Your task to perform on an android device: open a bookmark in the chrome app Image 0: 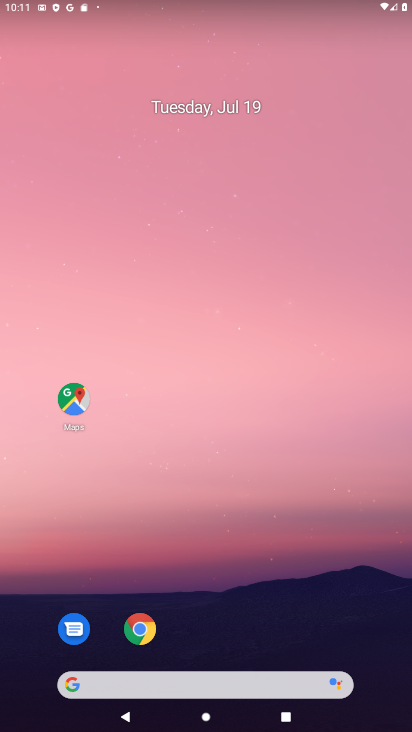
Step 0: drag from (207, 663) to (186, 93)
Your task to perform on an android device: open a bookmark in the chrome app Image 1: 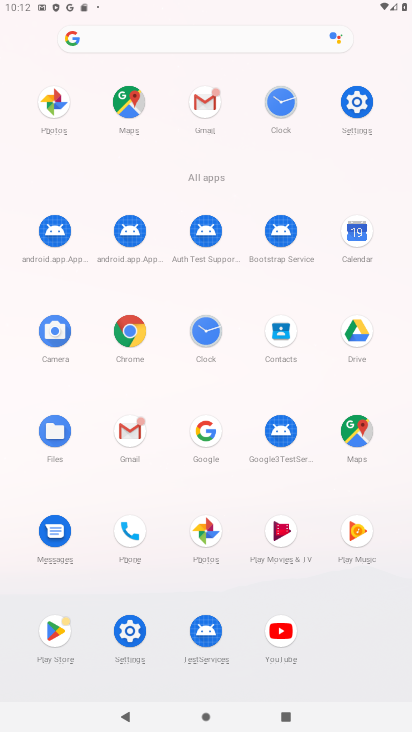
Step 1: click (135, 327)
Your task to perform on an android device: open a bookmark in the chrome app Image 2: 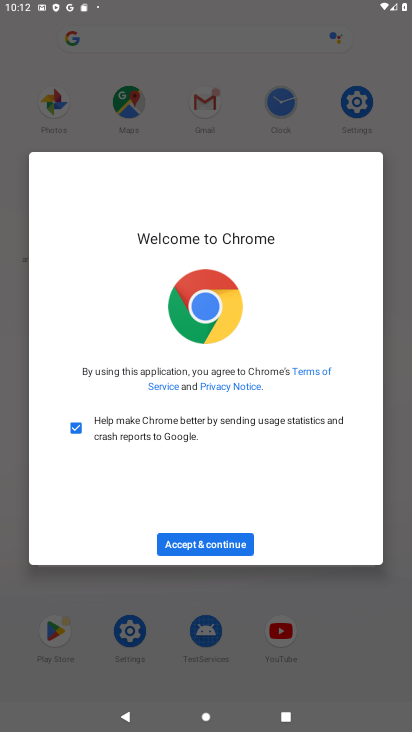
Step 2: click (233, 533)
Your task to perform on an android device: open a bookmark in the chrome app Image 3: 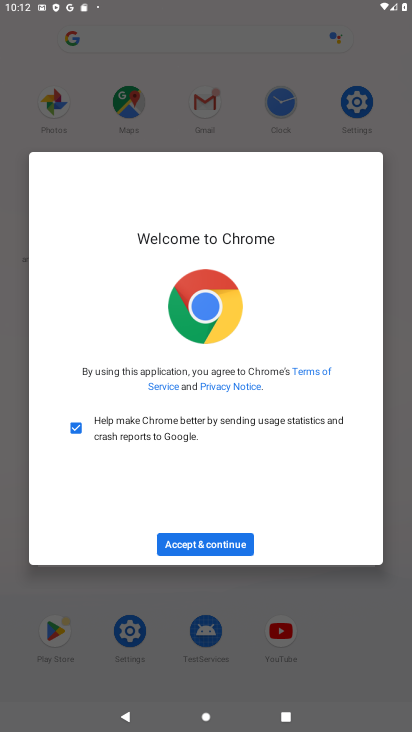
Step 3: click (230, 545)
Your task to perform on an android device: open a bookmark in the chrome app Image 4: 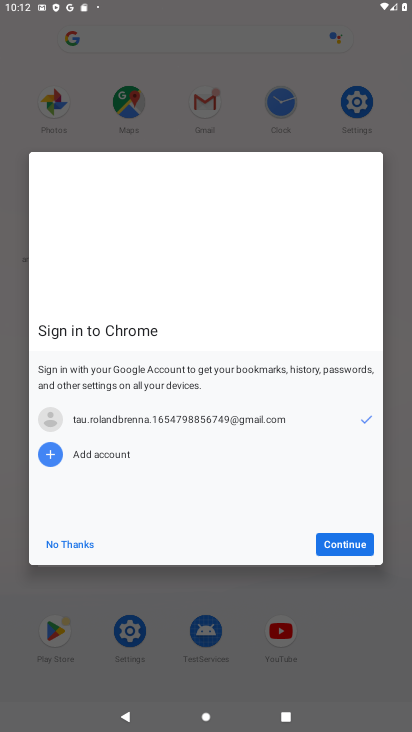
Step 4: click (347, 545)
Your task to perform on an android device: open a bookmark in the chrome app Image 5: 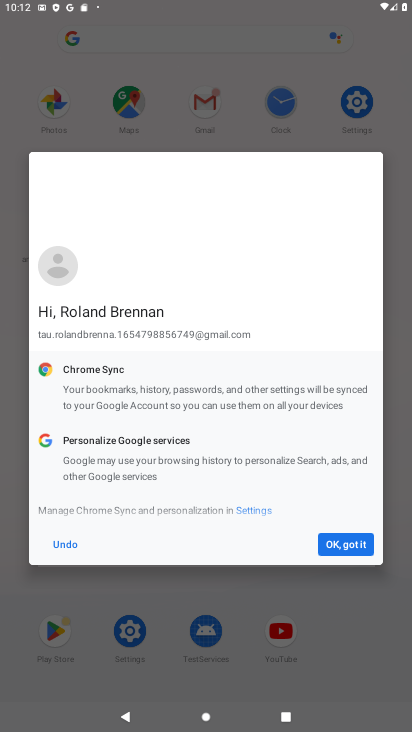
Step 5: click (341, 542)
Your task to perform on an android device: open a bookmark in the chrome app Image 6: 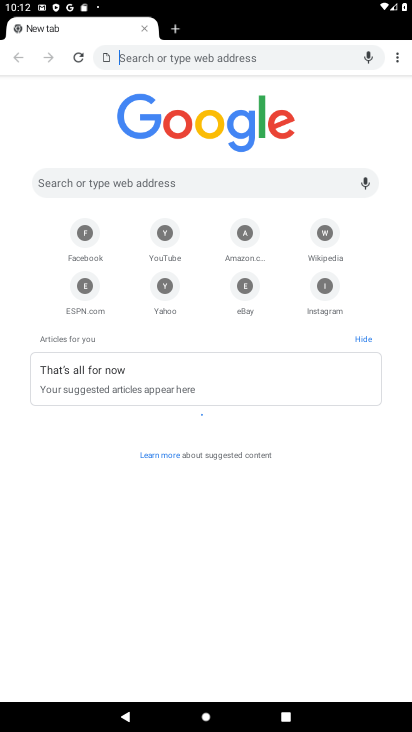
Step 6: drag from (404, 55) to (364, 123)
Your task to perform on an android device: open a bookmark in the chrome app Image 7: 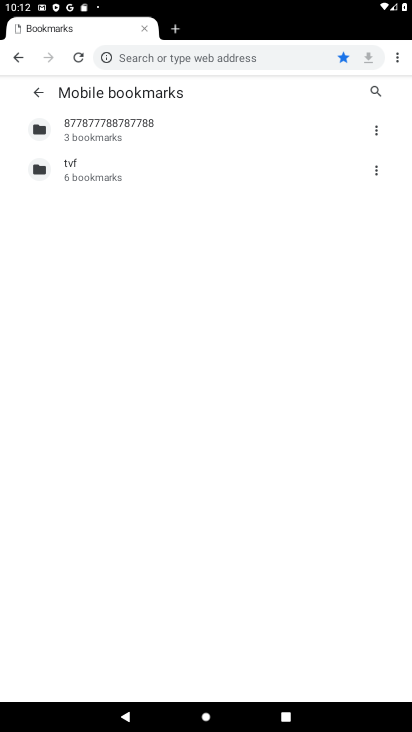
Step 7: click (205, 133)
Your task to perform on an android device: open a bookmark in the chrome app Image 8: 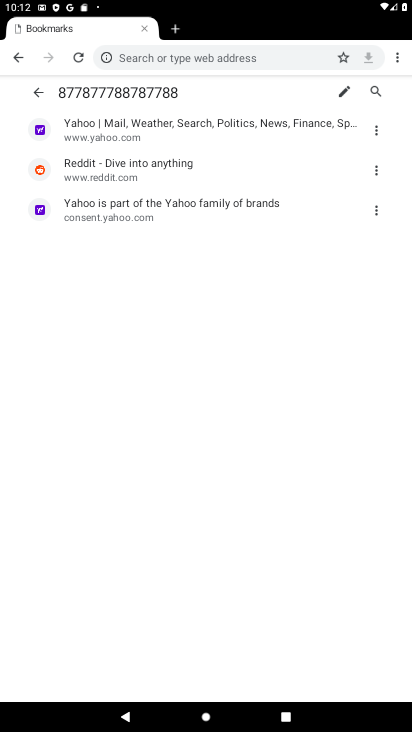
Step 8: click (228, 168)
Your task to perform on an android device: open a bookmark in the chrome app Image 9: 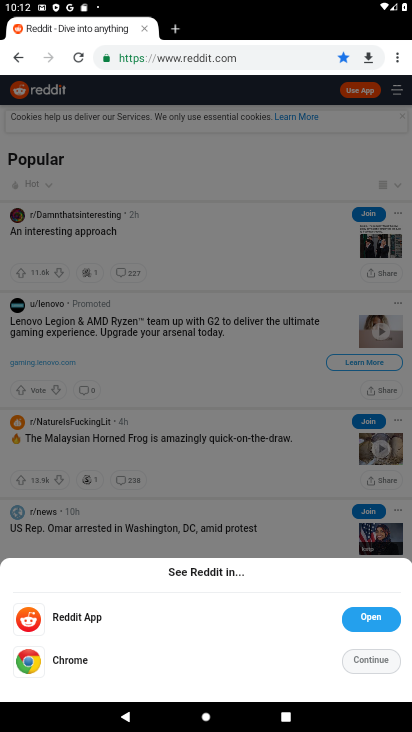
Step 9: click (386, 656)
Your task to perform on an android device: open a bookmark in the chrome app Image 10: 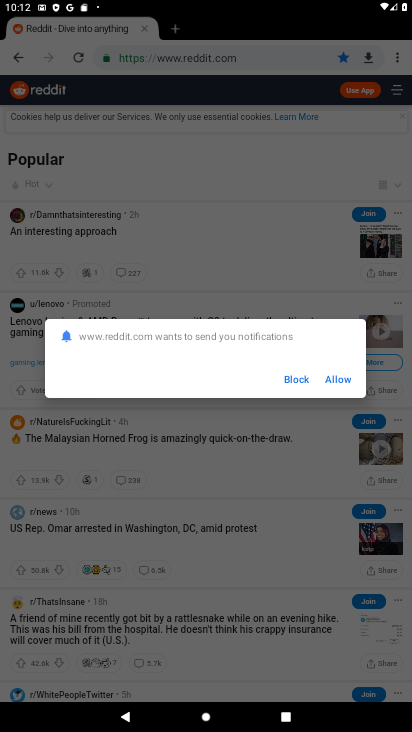
Step 10: click (349, 378)
Your task to perform on an android device: open a bookmark in the chrome app Image 11: 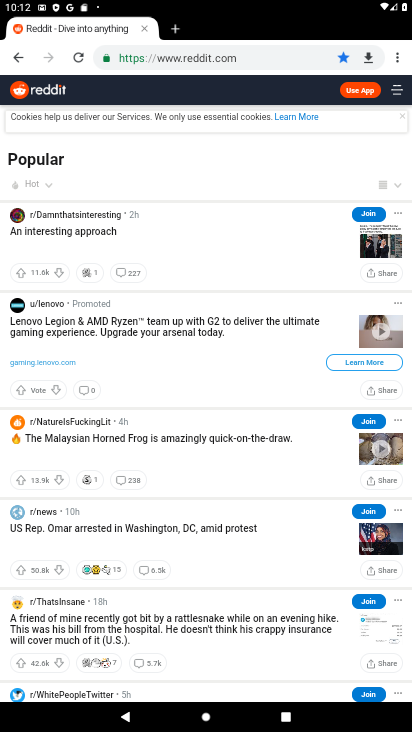
Step 11: task complete